Your task to perform on an android device: create a new album in the google photos Image 0: 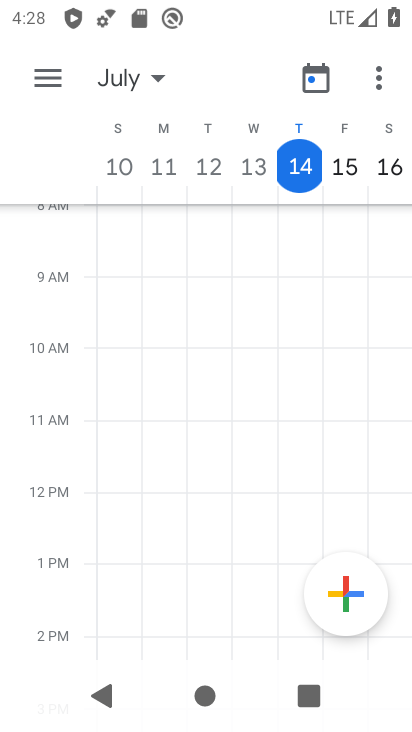
Step 0: press home button
Your task to perform on an android device: create a new album in the google photos Image 1: 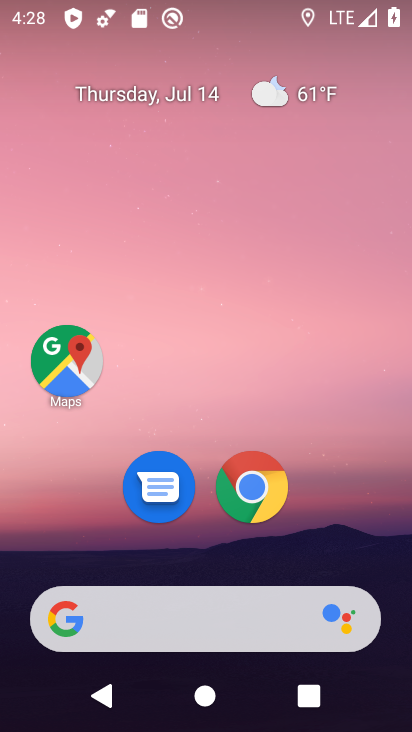
Step 1: drag from (386, 526) to (391, 52)
Your task to perform on an android device: create a new album in the google photos Image 2: 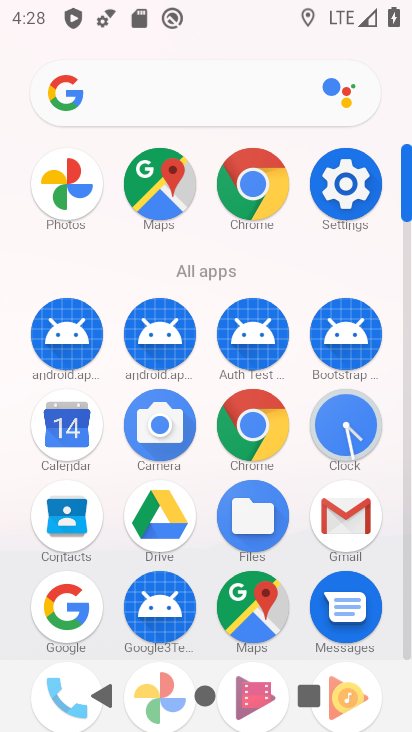
Step 2: click (63, 189)
Your task to perform on an android device: create a new album in the google photos Image 3: 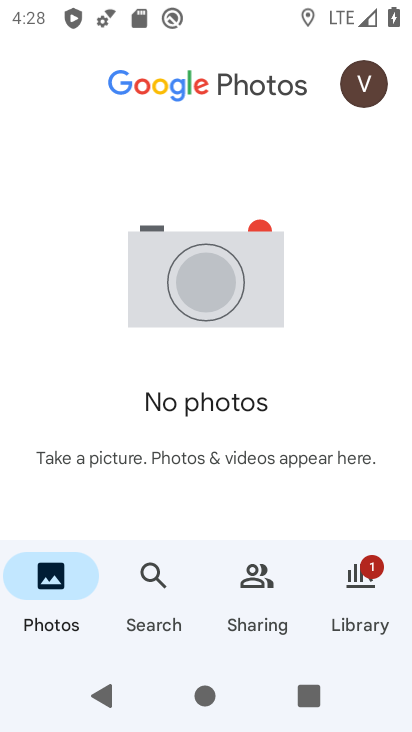
Step 3: click (366, 580)
Your task to perform on an android device: create a new album in the google photos Image 4: 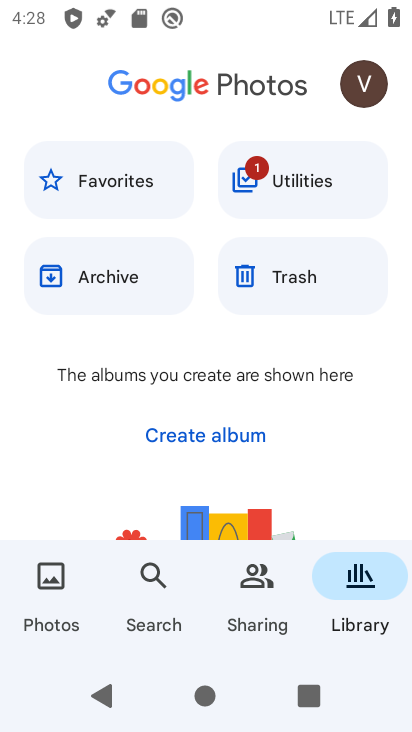
Step 4: click (242, 437)
Your task to perform on an android device: create a new album in the google photos Image 5: 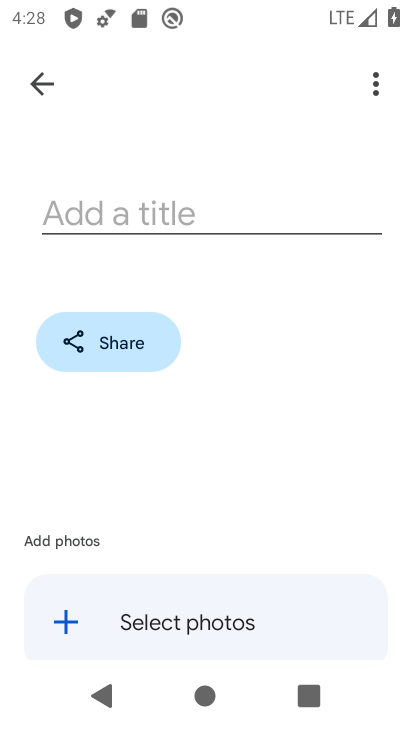
Step 5: click (200, 204)
Your task to perform on an android device: create a new album in the google photos Image 6: 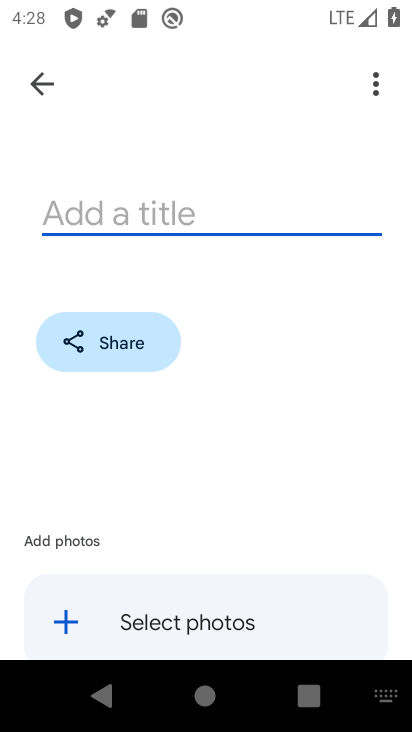
Step 6: type " b jbj jj"
Your task to perform on an android device: create a new album in the google photos Image 7: 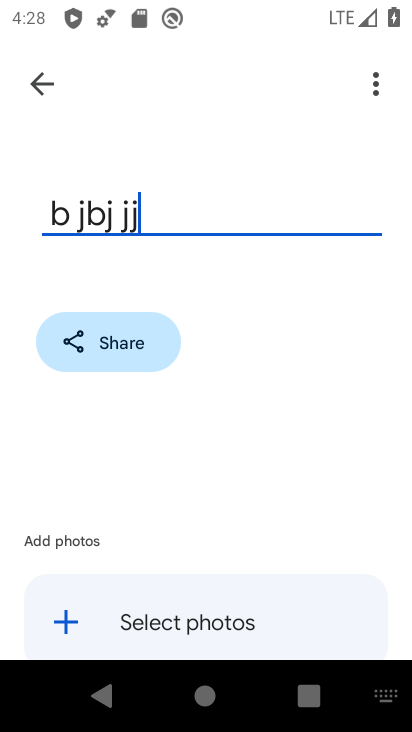
Step 7: click (233, 628)
Your task to perform on an android device: create a new album in the google photos Image 8: 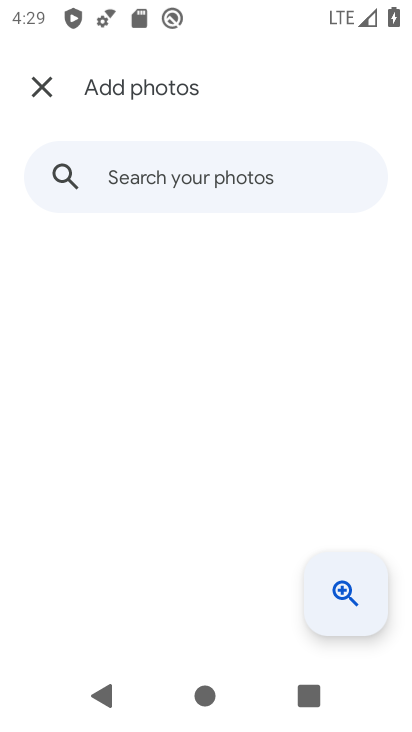
Step 8: task complete